Your task to perform on an android device: Show me the alarms in the clock app Image 0: 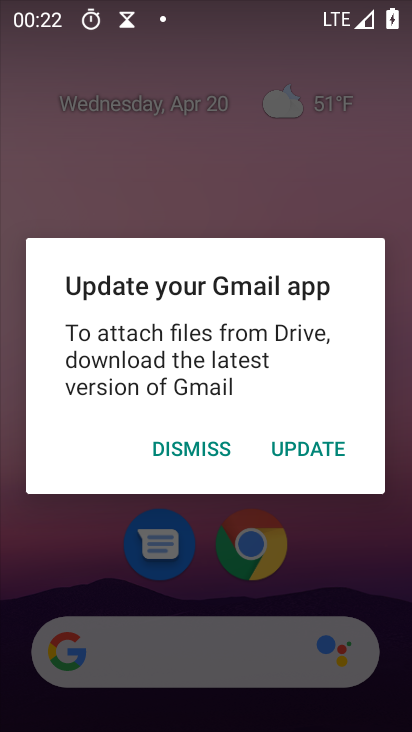
Step 0: press home button
Your task to perform on an android device: Show me the alarms in the clock app Image 1: 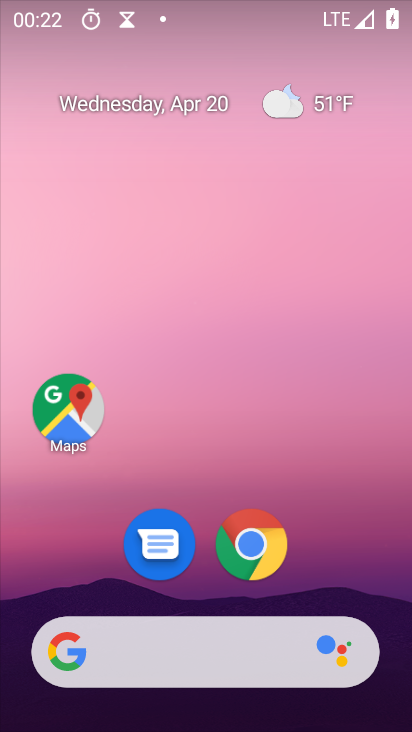
Step 1: drag from (334, 523) to (326, 145)
Your task to perform on an android device: Show me the alarms in the clock app Image 2: 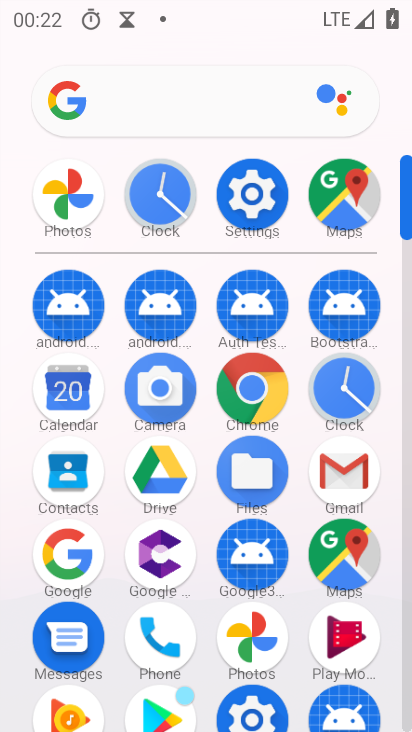
Step 2: click (337, 396)
Your task to perform on an android device: Show me the alarms in the clock app Image 3: 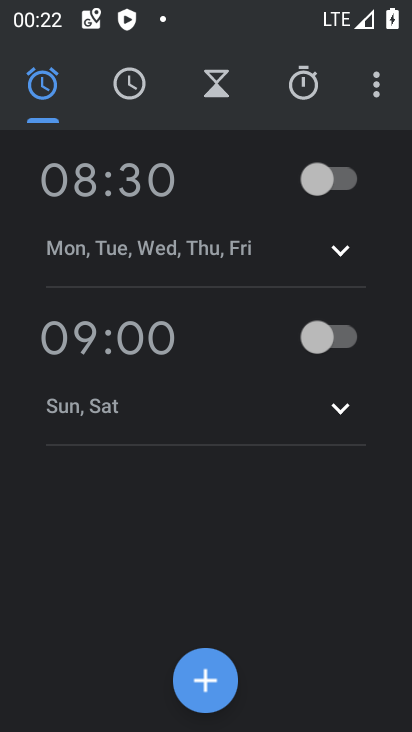
Step 3: task complete